Your task to perform on an android device: Set the phone to "Do not disturb". Image 0: 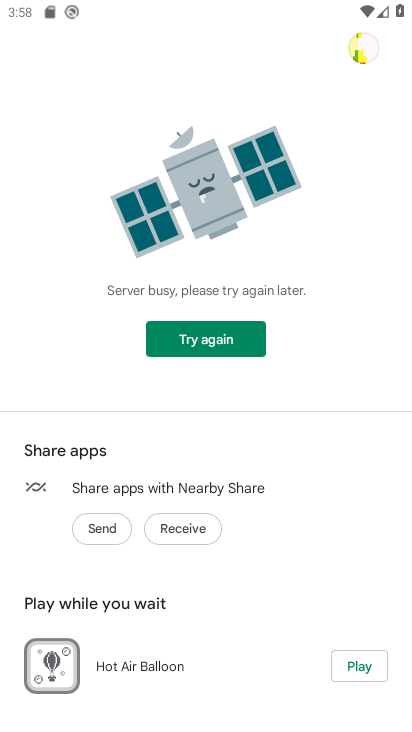
Step 0: press home button
Your task to perform on an android device: Set the phone to "Do not disturb". Image 1: 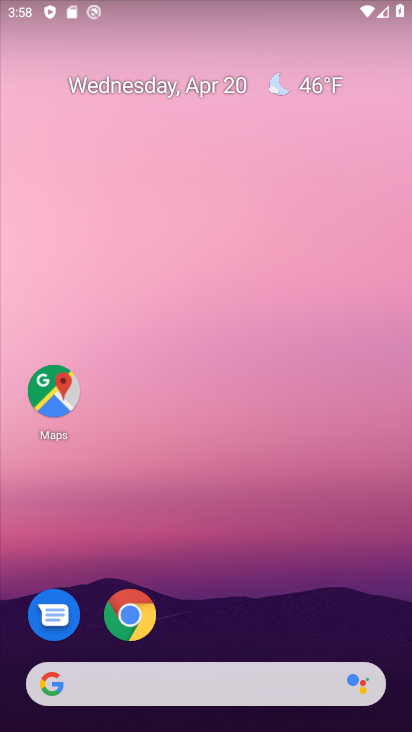
Step 1: drag from (271, 509) to (313, 123)
Your task to perform on an android device: Set the phone to "Do not disturb". Image 2: 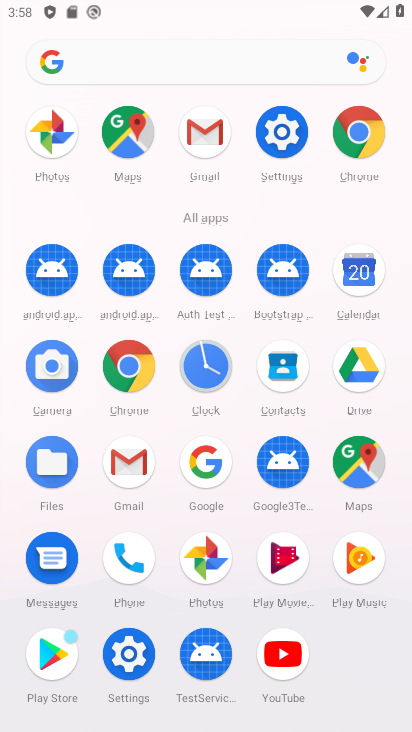
Step 2: click (281, 145)
Your task to perform on an android device: Set the phone to "Do not disturb". Image 3: 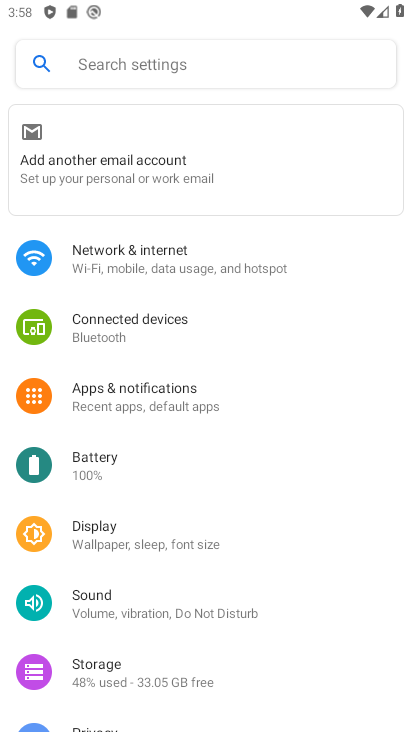
Step 3: drag from (162, 450) to (233, 182)
Your task to perform on an android device: Set the phone to "Do not disturb". Image 4: 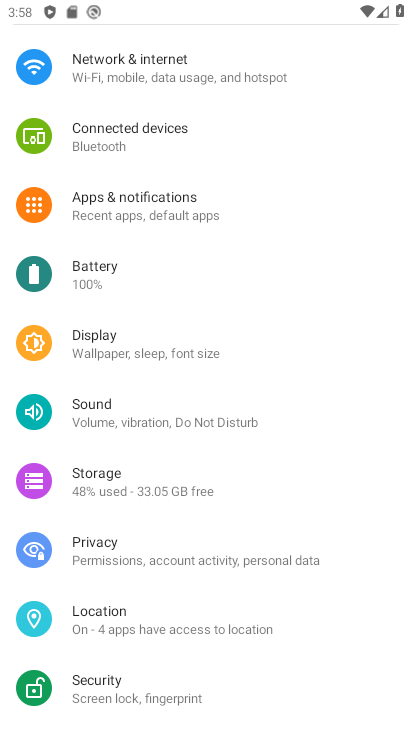
Step 4: click (105, 394)
Your task to perform on an android device: Set the phone to "Do not disturb". Image 5: 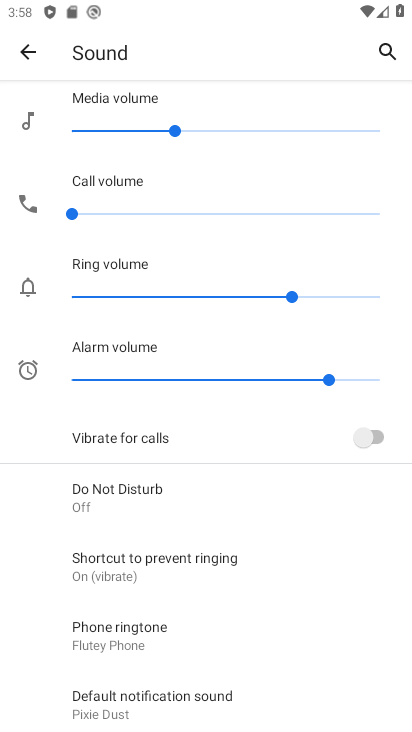
Step 5: click (85, 502)
Your task to perform on an android device: Set the phone to "Do not disturb". Image 6: 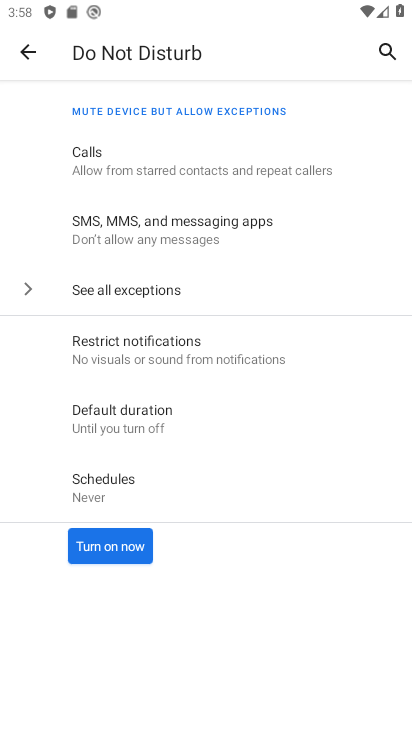
Step 6: click (117, 536)
Your task to perform on an android device: Set the phone to "Do not disturb". Image 7: 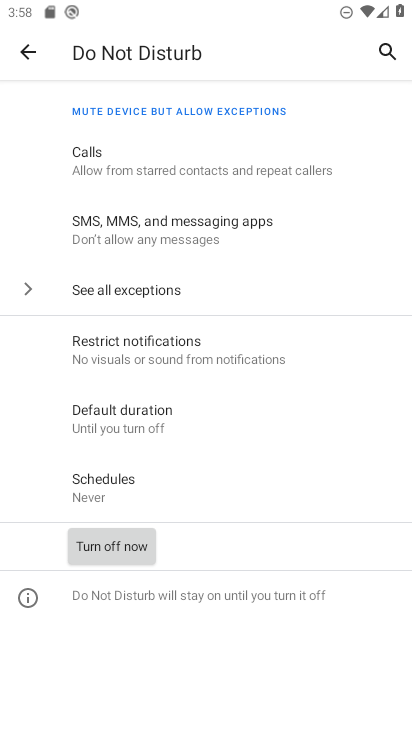
Step 7: task complete